Your task to perform on an android device: refresh tabs in the chrome app Image 0: 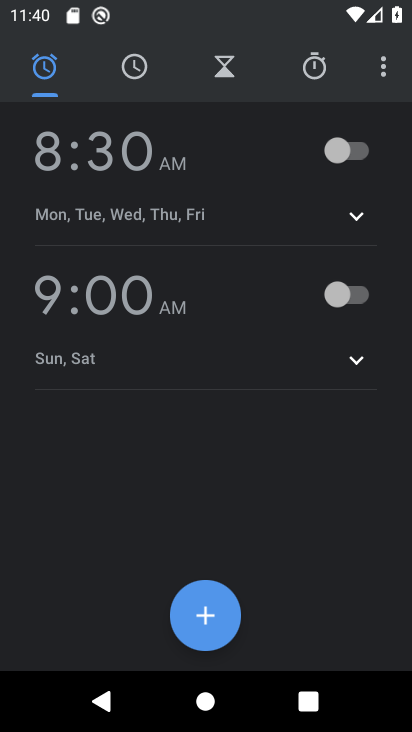
Step 0: press home button
Your task to perform on an android device: refresh tabs in the chrome app Image 1: 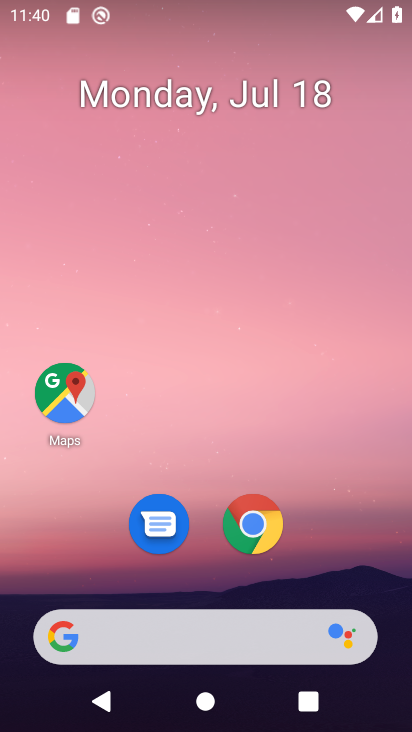
Step 1: click (260, 520)
Your task to perform on an android device: refresh tabs in the chrome app Image 2: 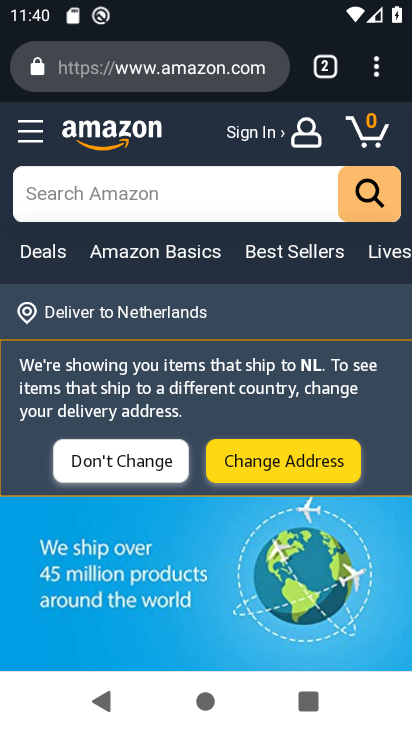
Step 2: click (381, 67)
Your task to perform on an android device: refresh tabs in the chrome app Image 3: 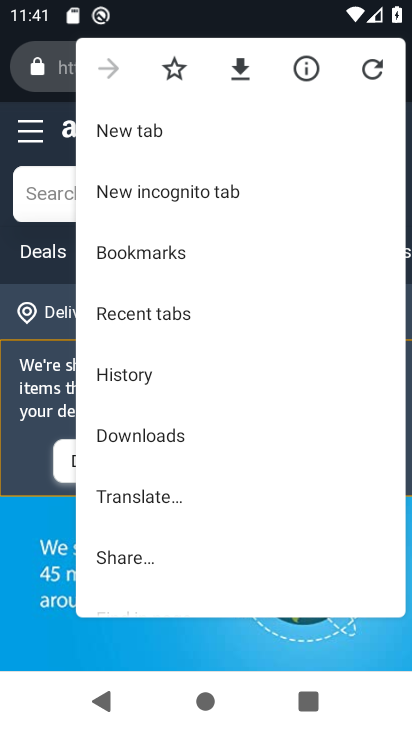
Step 3: click (368, 67)
Your task to perform on an android device: refresh tabs in the chrome app Image 4: 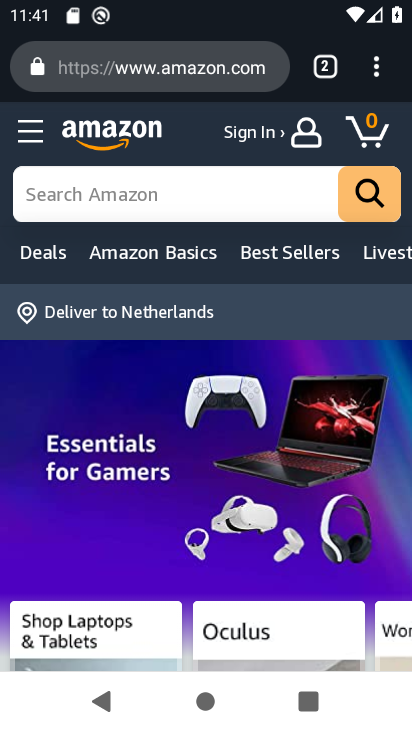
Step 4: task complete